Your task to perform on an android device: Go to location settings Image 0: 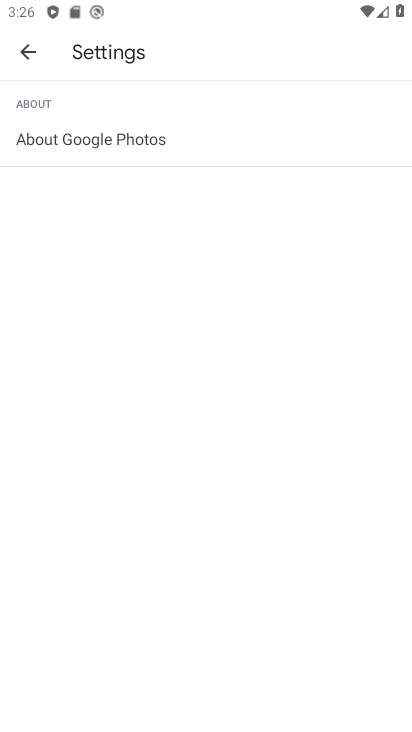
Step 0: press home button
Your task to perform on an android device: Go to location settings Image 1: 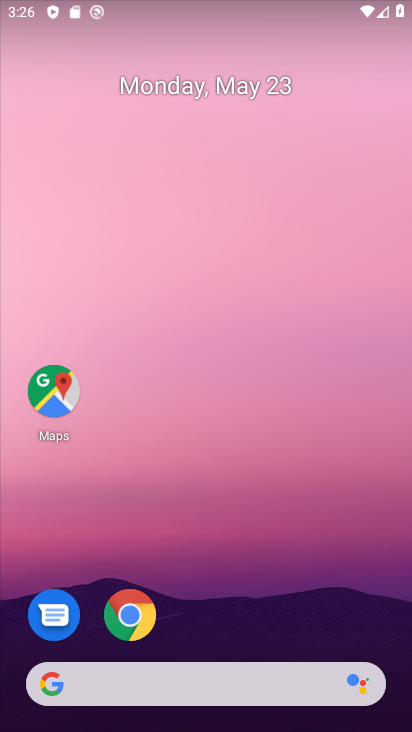
Step 1: drag from (360, 614) to (365, 230)
Your task to perform on an android device: Go to location settings Image 2: 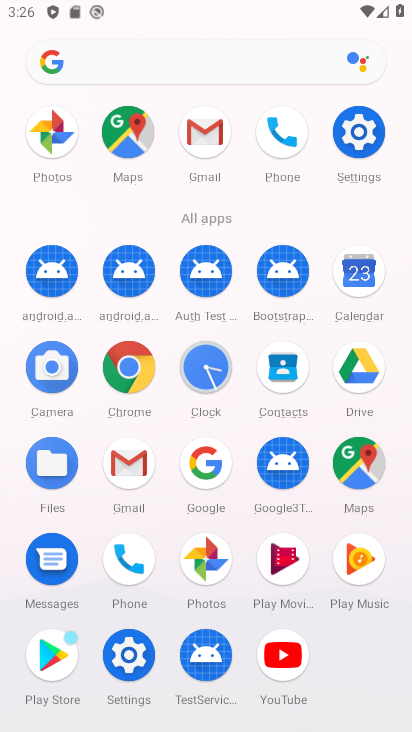
Step 2: click (127, 670)
Your task to perform on an android device: Go to location settings Image 3: 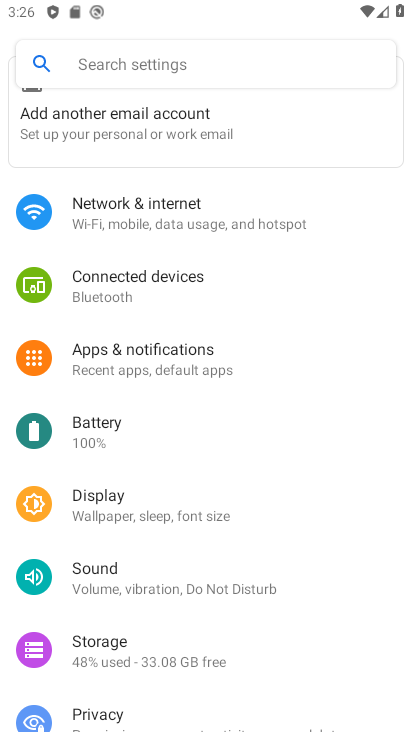
Step 3: drag from (356, 636) to (357, 491)
Your task to perform on an android device: Go to location settings Image 4: 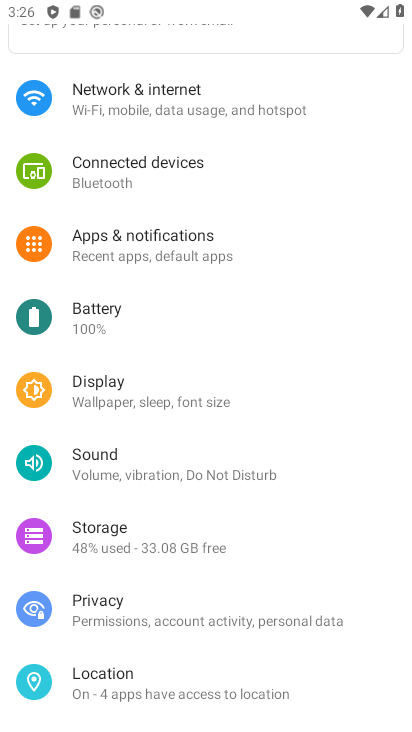
Step 4: drag from (344, 681) to (343, 542)
Your task to perform on an android device: Go to location settings Image 5: 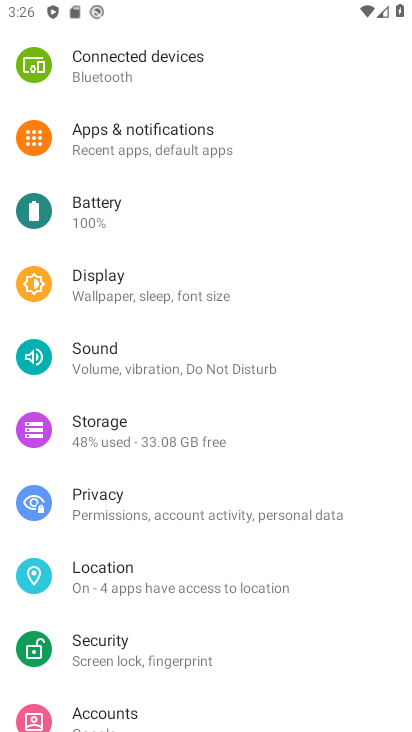
Step 5: drag from (343, 683) to (343, 544)
Your task to perform on an android device: Go to location settings Image 6: 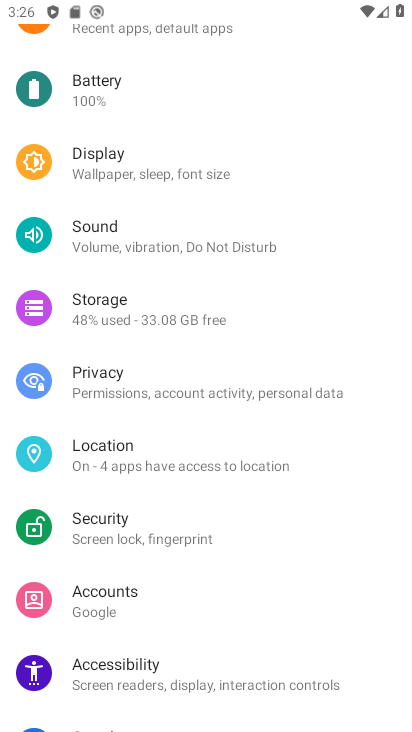
Step 6: drag from (355, 696) to (360, 521)
Your task to perform on an android device: Go to location settings Image 7: 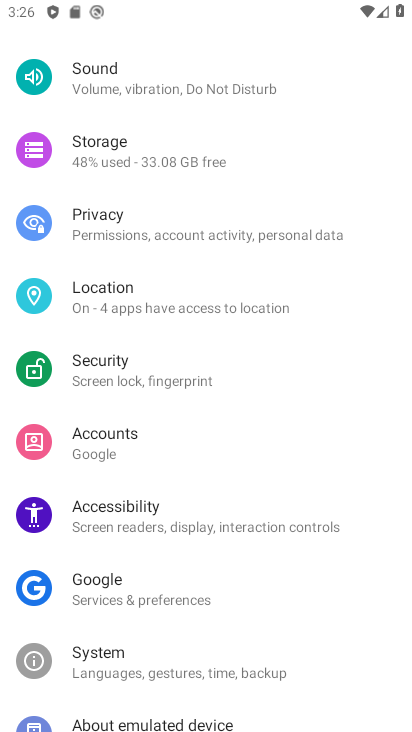
Step 7: drag from (360, 681) to (355, 511)
Your task to perform on an android device: Go to location settings Image 8: 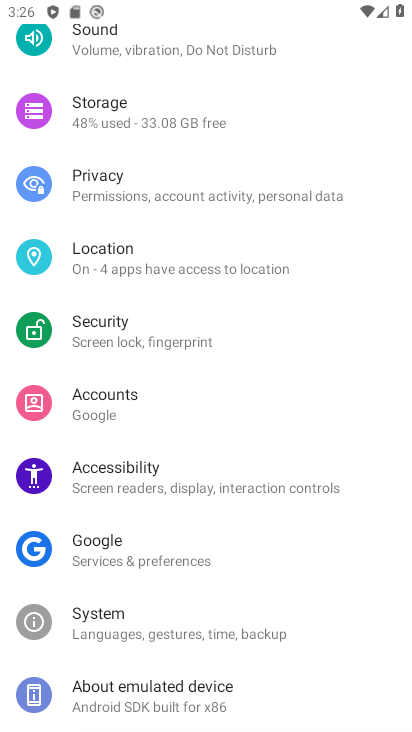
Step 8: drag from (368, 383) to (349, 544)
Your task to perform on an android device: Go to location settings Image 9: 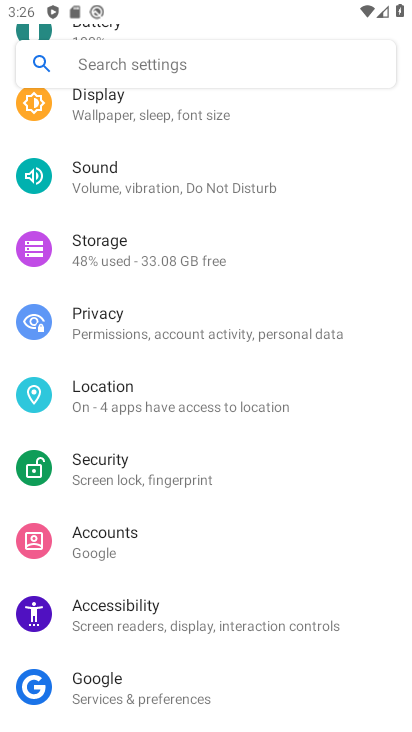
Step 9: drag from (360, 388) to (340, 530)
Your task to perform on an android device: Go to location settings Image 10: 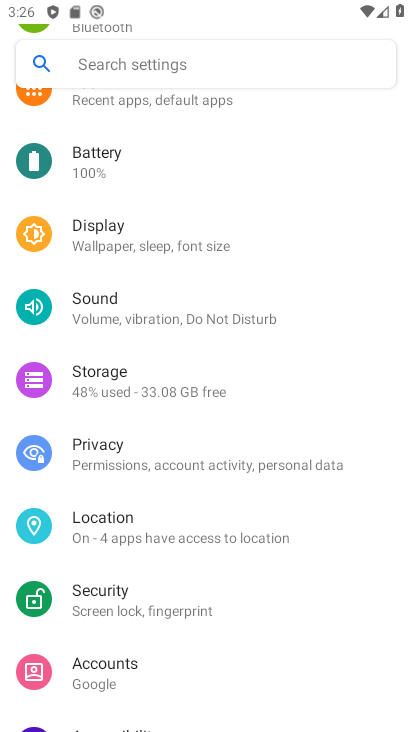
Step 10: drag from (353, 394) to (334, 522)
Your task to perform on an android device: Go to location settings Image 11: 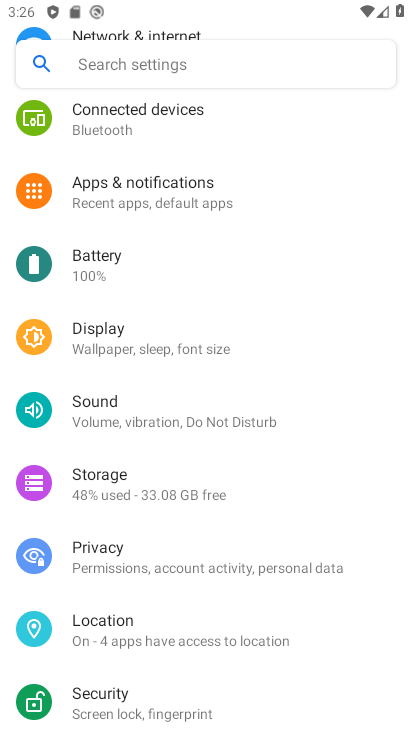
Step 11: drag from (332, 372) to (323, 493)
Your task to perform on an android device: Go to location settings Image 12: 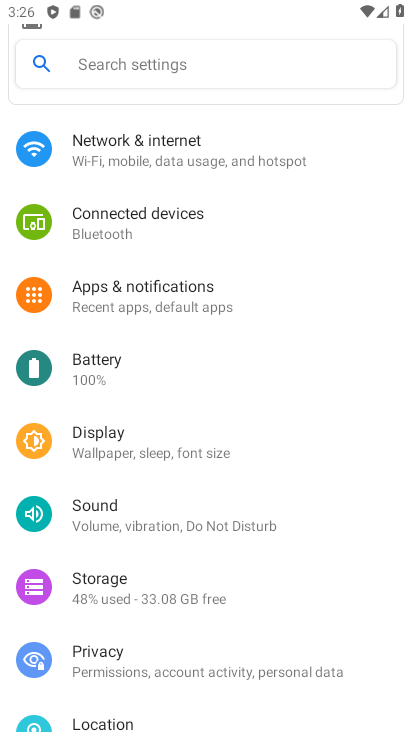
Step 12: drag from (314, 598) to (309, 440)
Your task to perform on an android device: Go to location settings Image 13: 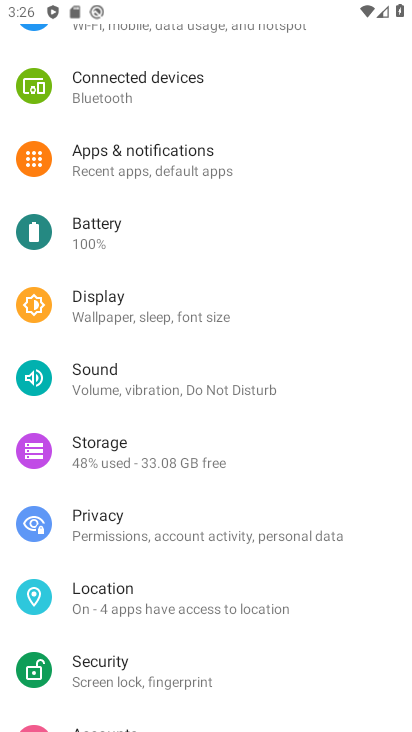
Step 13: click (292, 609)
Your task to perform on an android device: Go to location settings Image 14: 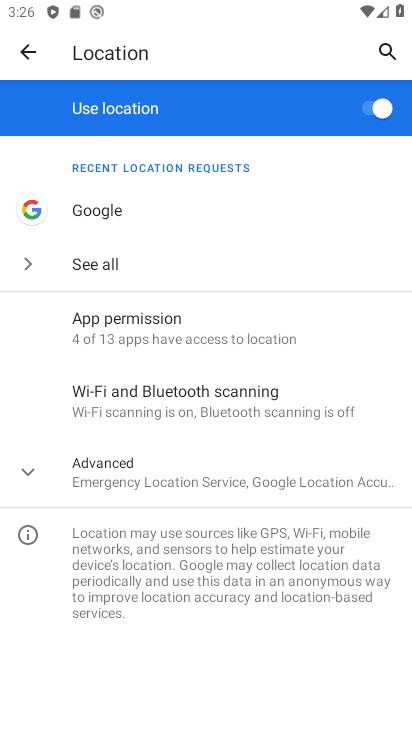
Step 14: task complete